Your task to perform on an android device: Open Youtube and go to the subscriptions tab Image 0: 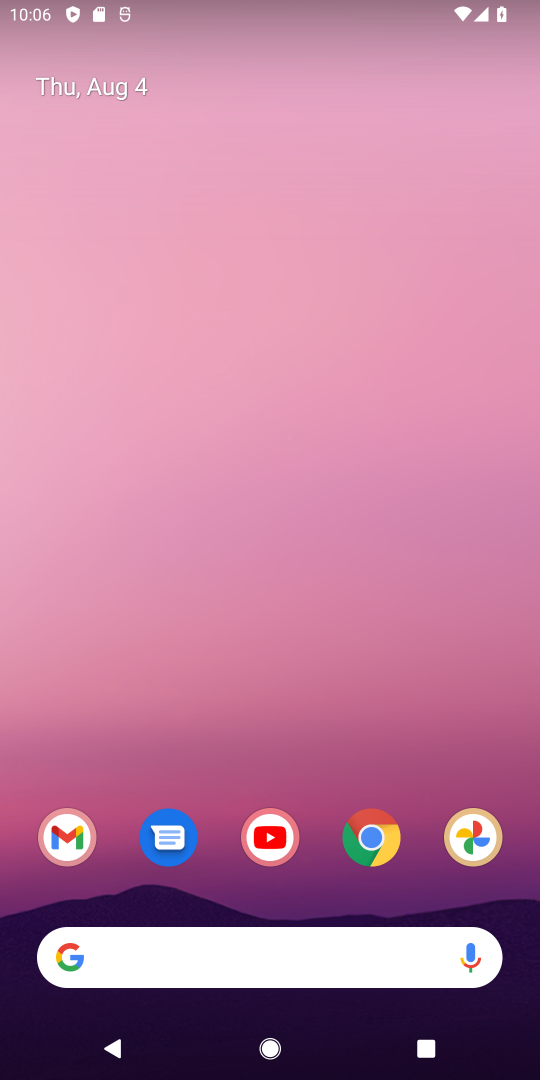
Step 0: drag from (166, 850) to (370, 41)
Your task to perform on an android device: Open Youtube and go to the subscriptions tab Image 1: 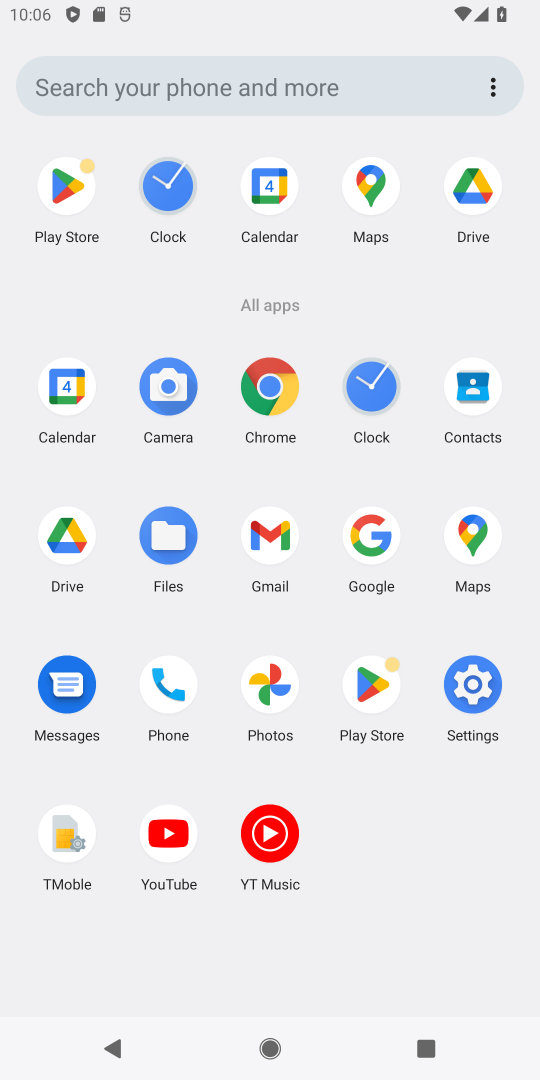
Step 1: click (159, 830)
Your task to perform on an android device: Open Youtube and go to the subscriptions tab Image 2: 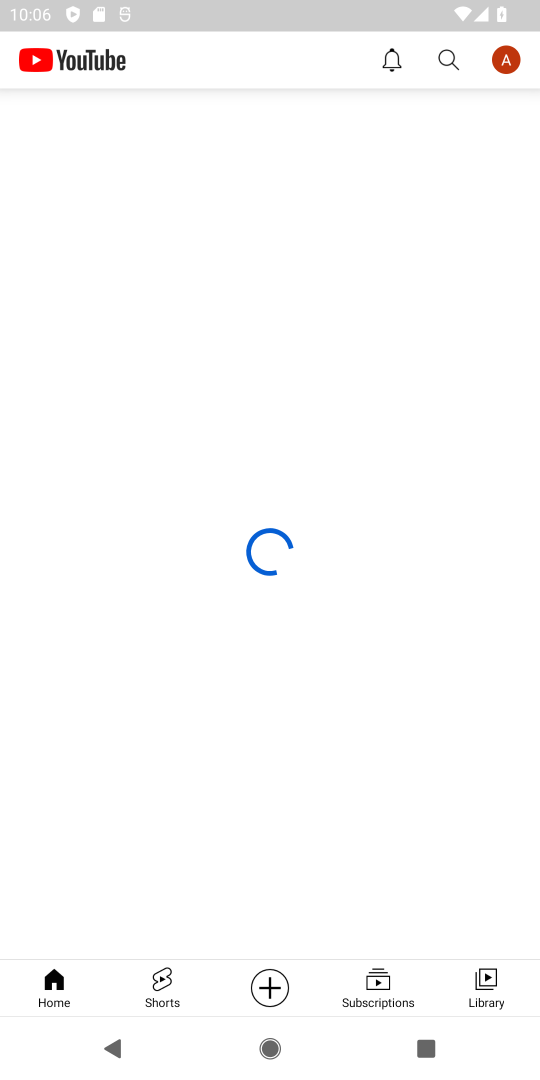
Step 2: click (336, 964)
Your task to perform on an android device: Open Youtube and go to the subscriptions tab Image 3: 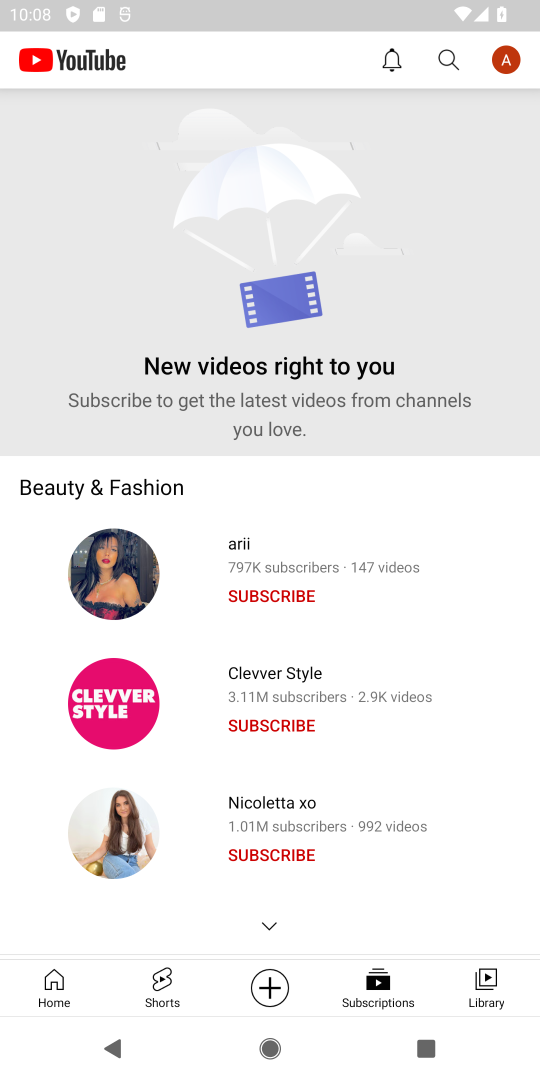
Step 3: task complete